Your task to perform on an android device: turn off location Image 0: 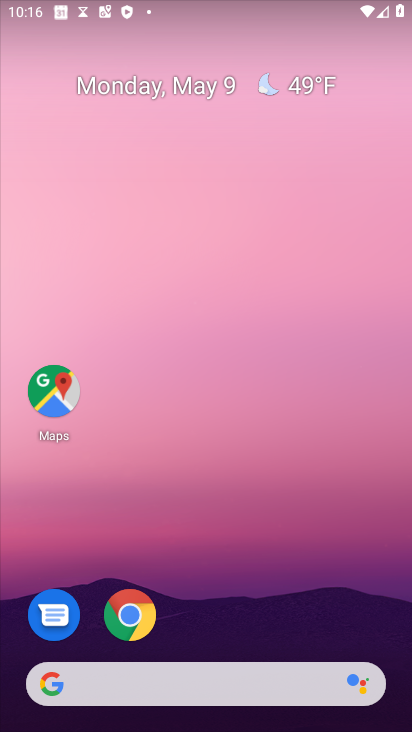
Step 0: drag from (216, 622) to (218, 72)
Your task to perform on an android device: turn off location Image 1: 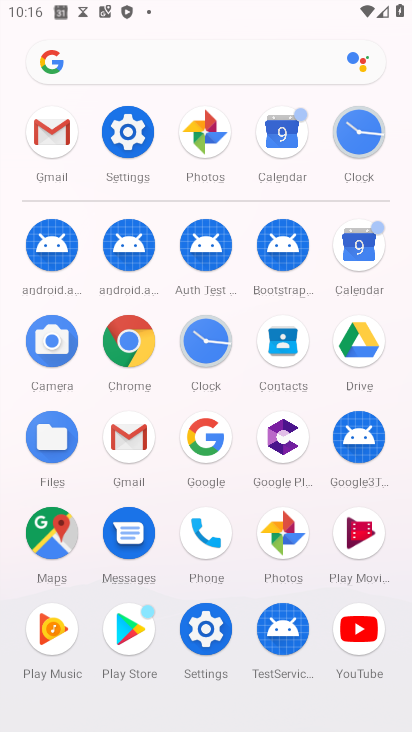
Step 1: click (148, 133)
Your task to perform on an android device: turn off location Image 2: 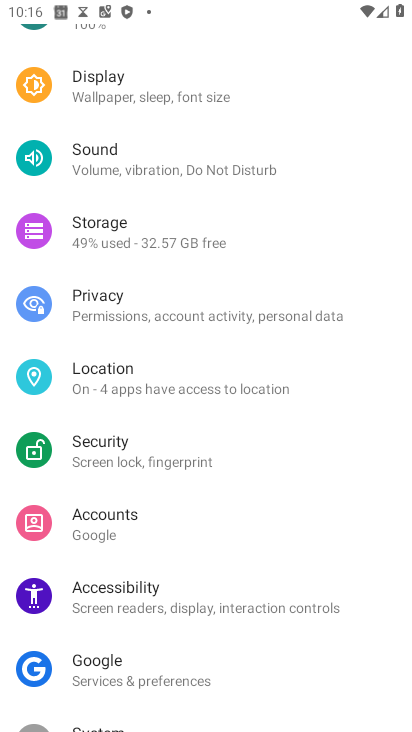
Step 2: drag from (162, 201) to (182, 306)
Your task to perform on an android device: turn off location Image 3: 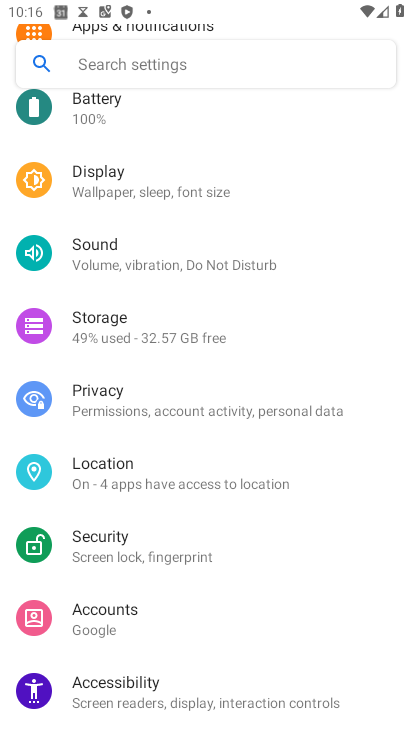
Step 3: click (149, 482)
Your task to perform on an android device: turn off location Image 4: 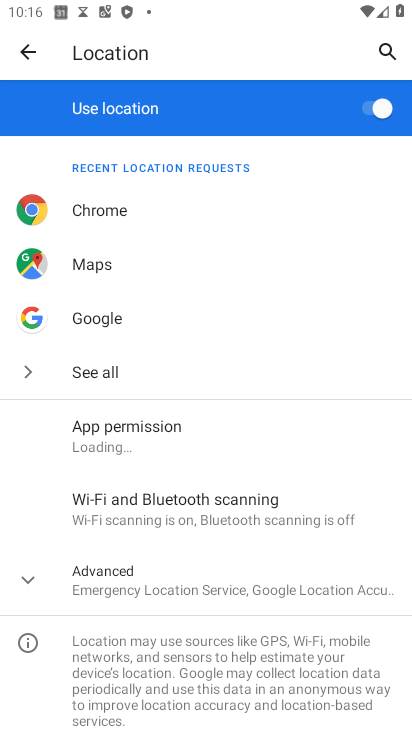
Step 4: click (374, 111)
Your task to perform on an android device: turn off location Image 5: 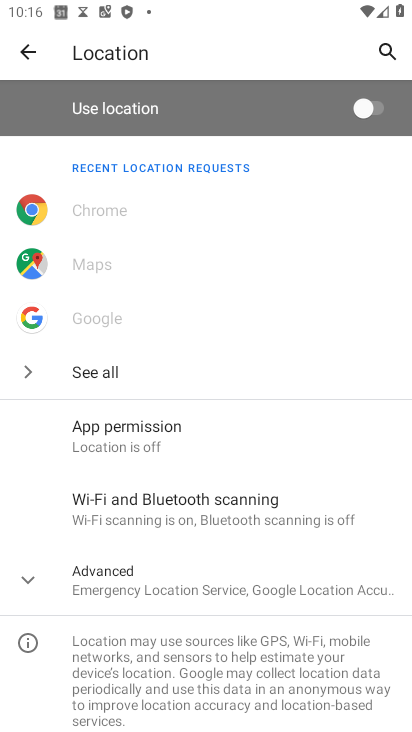
Step 5: task complete